Your task to perform on an android device: turn off wifi Image 0: 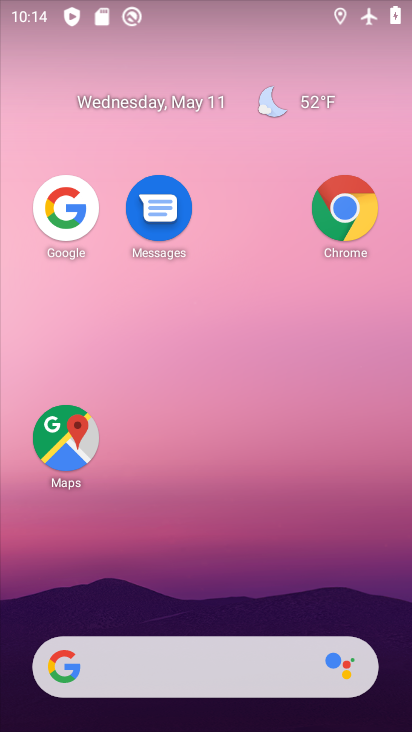
Step 0: drag from (193, 626) to (222, 2)
Your task to perform on an android device: turn off wifi Image 1: 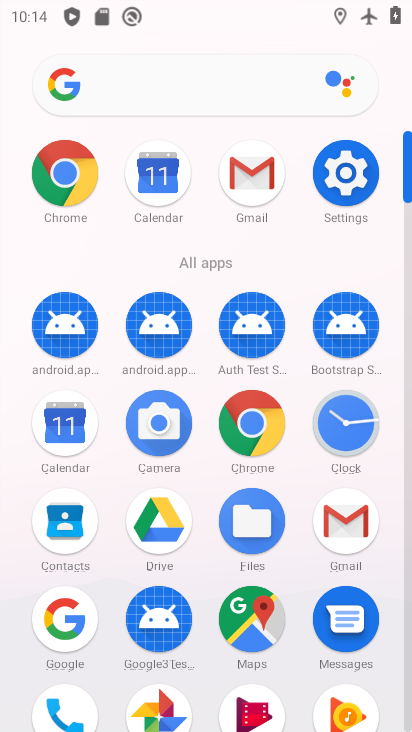
Step 1: click (334, 183)
Your task to perform on an android device: turn off wifi Image 2: 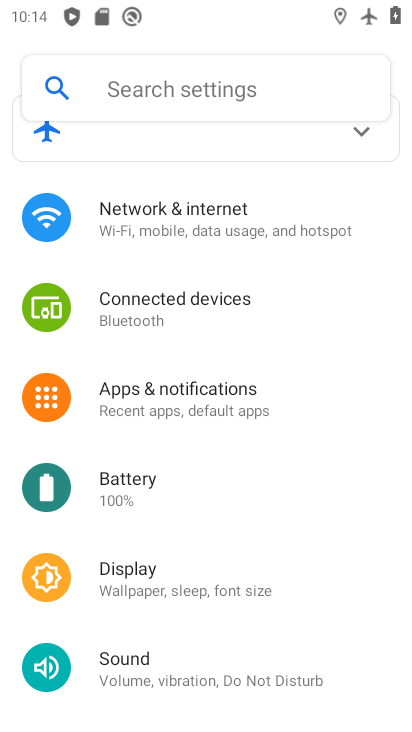
Step 2: click (205, 230)
Your task to perform on an android device: turn off wifi Image 3: 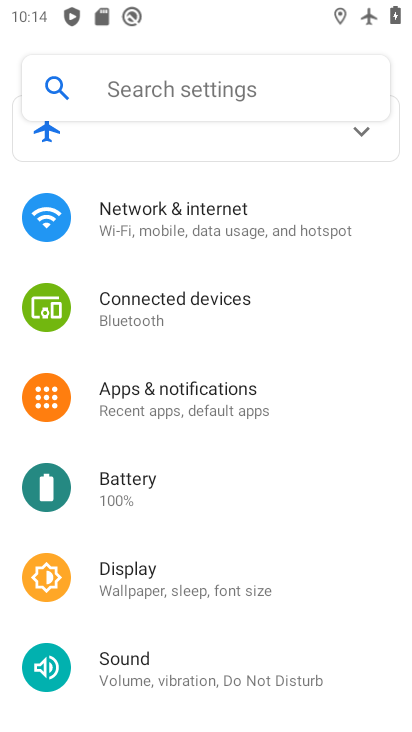
Step 3: click (205, 230)
Your task to perform on an android device: turn off wifi Image 4: 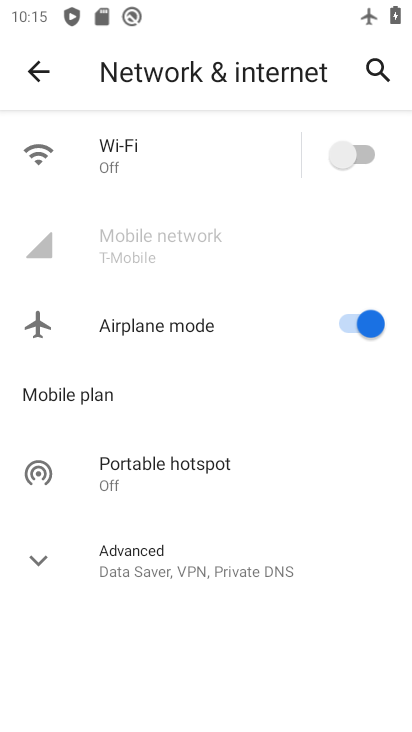
Step 4: click (213, 162)
Your task to perform on an android device: turn off wifi Image 5: 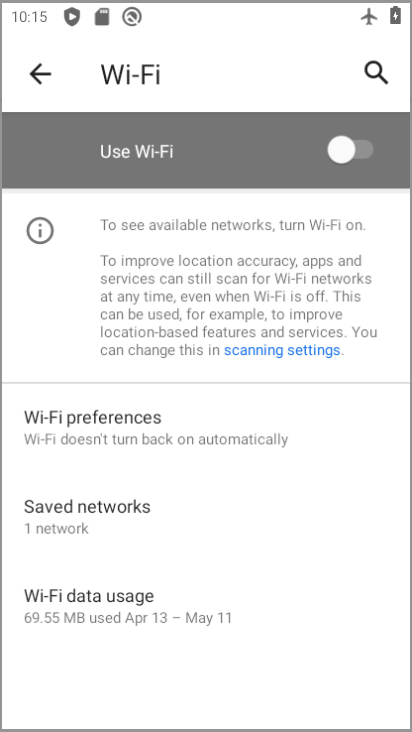
Step 5: click (213, 162)
Your task to perform on an android device: turn off wifi Image 6: 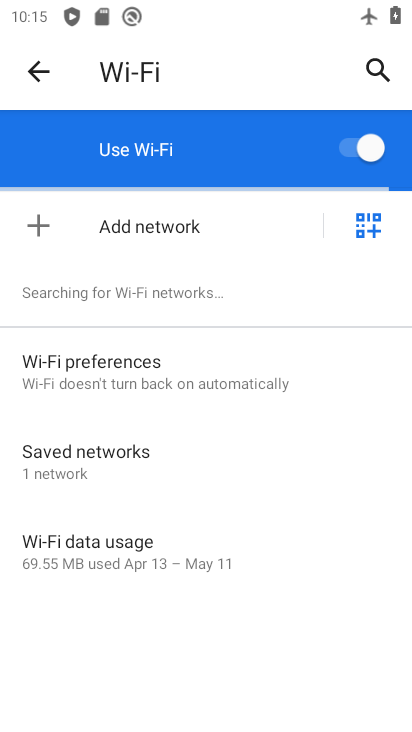
Step 6: click (372, 147)
Your task to perform on an android device: turn off wifi Image 7: 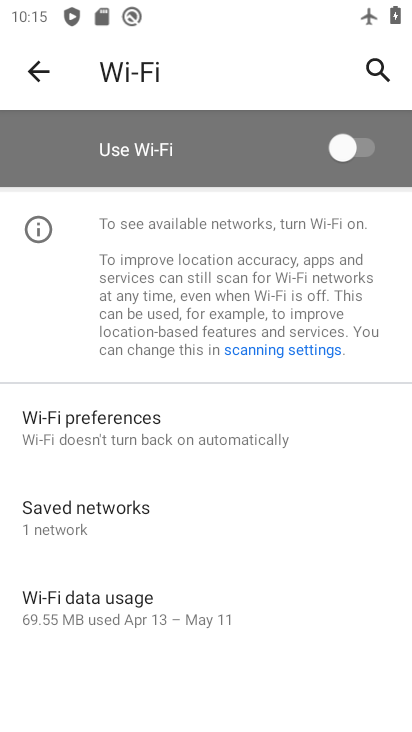
Step 7: task complete